Your task to perform on an android device: find snoozed emails in the gmail app Image 0: 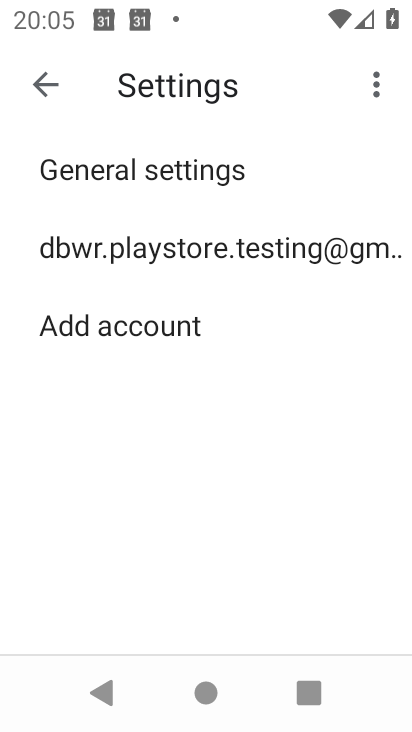
Step 0: press home button
Your task to perform on an android device: find snoozed emails in the gmail app Image 1: 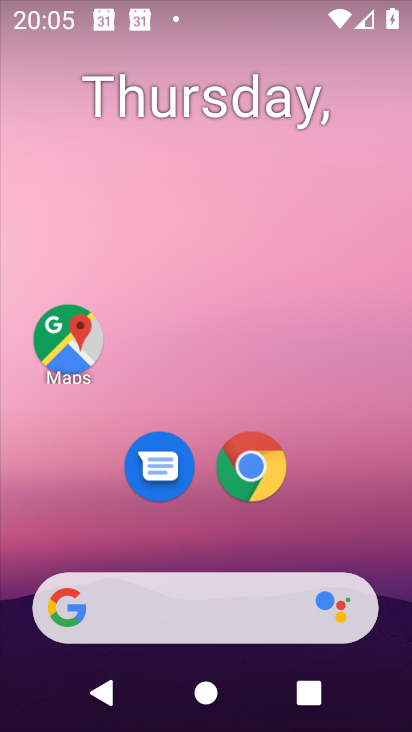
Step 1: drag from (324, 519) to (249, 147)
Your task to perform on an android device: find snoozed emails in the gmail app Image 2: 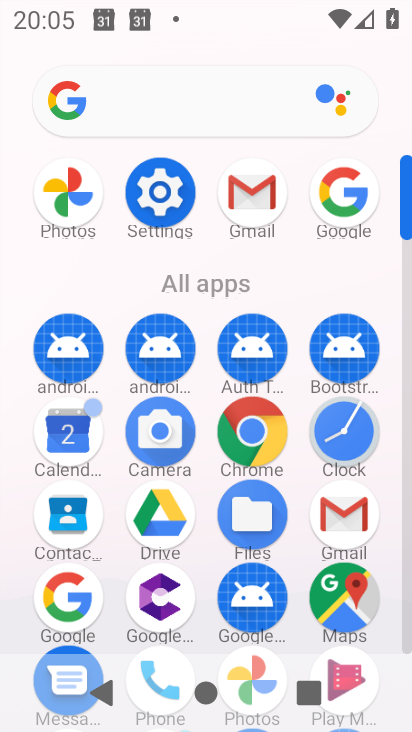
Step 2: click (265, 203)
Your task to perform on an android device: find snoozed emails in the gmail app Image 3: 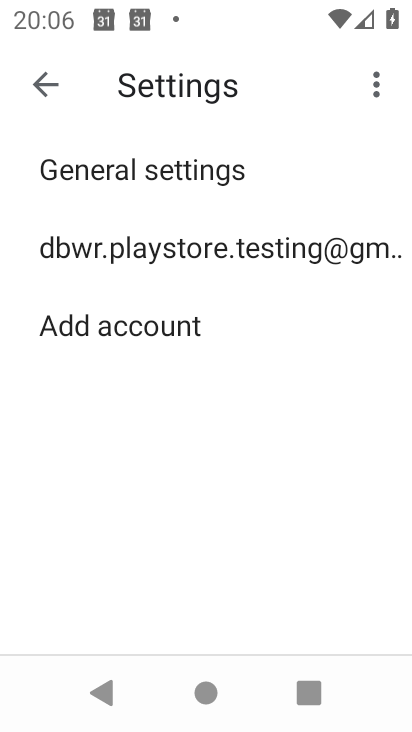
Step 3: click (154, 245)
Your task to perform on an android device: find snoozed emails in the gmail app Image 4: 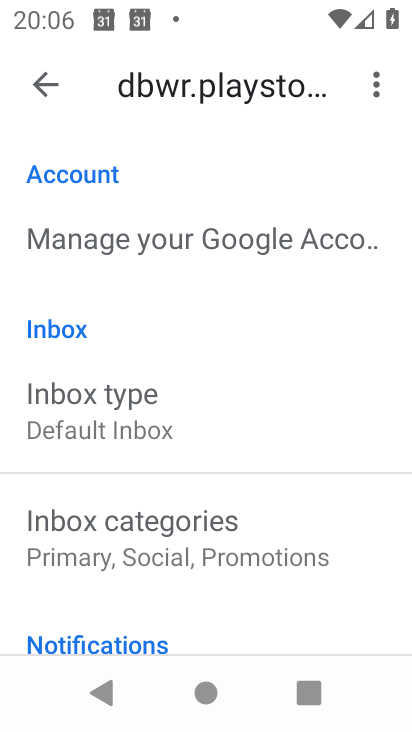
Step 4: click (45, 79)
Your task to perform on an android device: find snoozed emails in the gmail app Image 5: 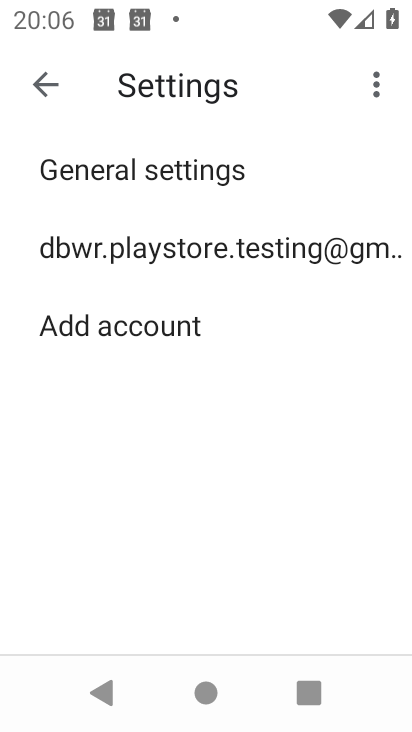
Step 5: click (36, 80)
Your task to perform on an android device: find snoozed emails in the gmail app Image 6: 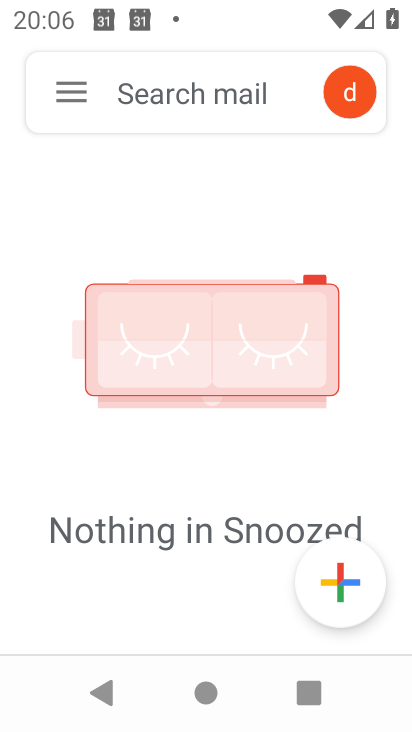
Step 6: click (63, 84)
Your task to perform on an android device: find snoozed emails in the gmail app Image 7: 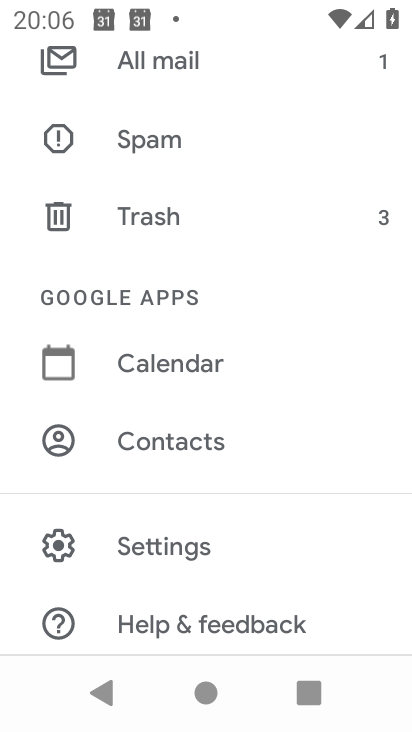
Step 7: drag from (327, 101) to (314, 648)
Your task to perform on an android device: find snoozed emails in the gmail app Image 8: 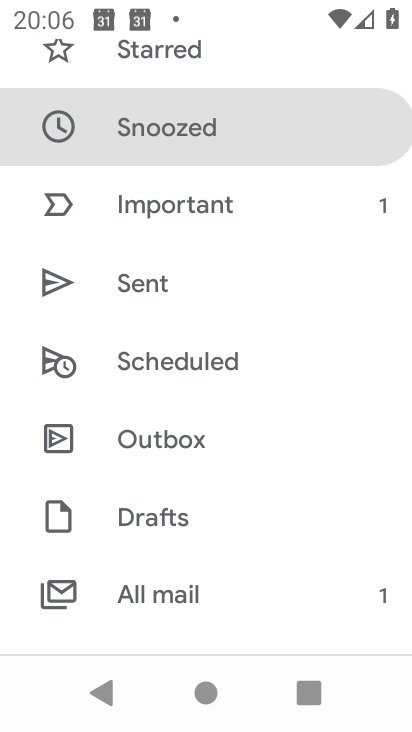
Step 8: click (181, 142)
Your task to perform on an android device: find snoozed emails in the gmail app Image 9: 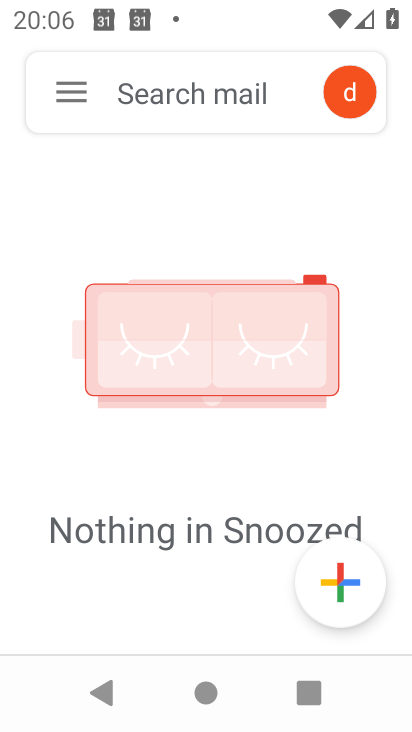
Step 9: task complete